Your task to perform on an android device: Open Google Image 0: 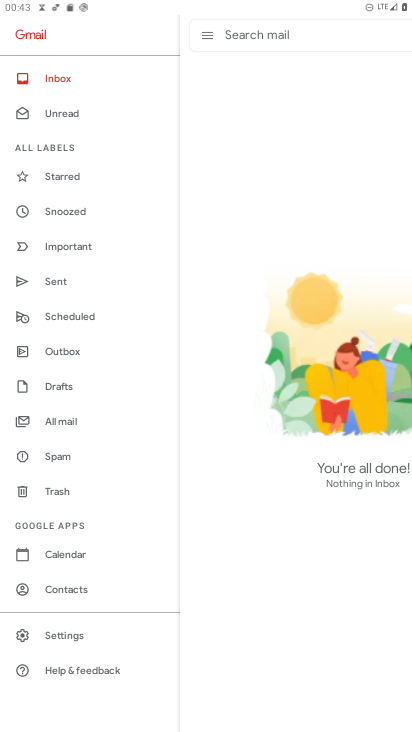
Step 0: press home button
Your task to perform on an android device: Open Google Image 1: 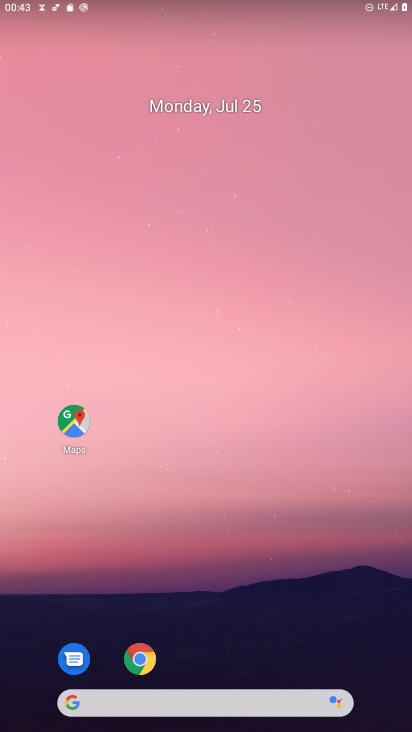
Step 1: drag from (244, 647) to (249, 188)
Your task to perform on an android device: Open Google Image 2: 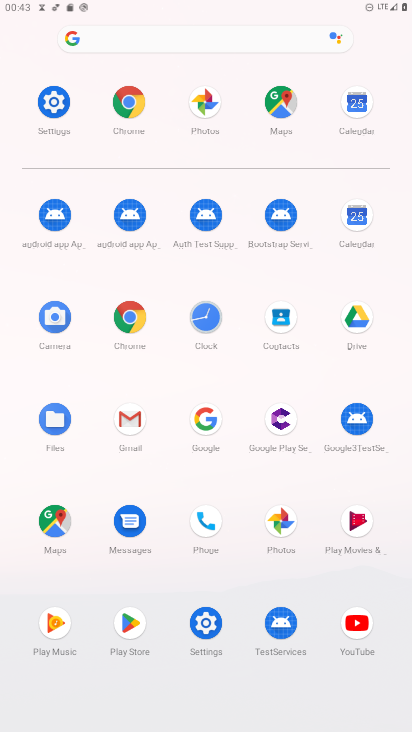
Step 2: click (206, 410)
Your task to perform on an android device: Open Google Image 3: 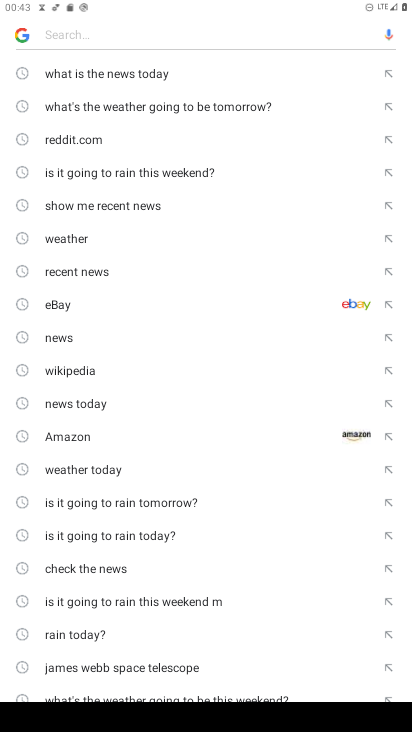
Step 3: task complete